Your task to perform on an android device: Open Maps and search for coffee Image 0: 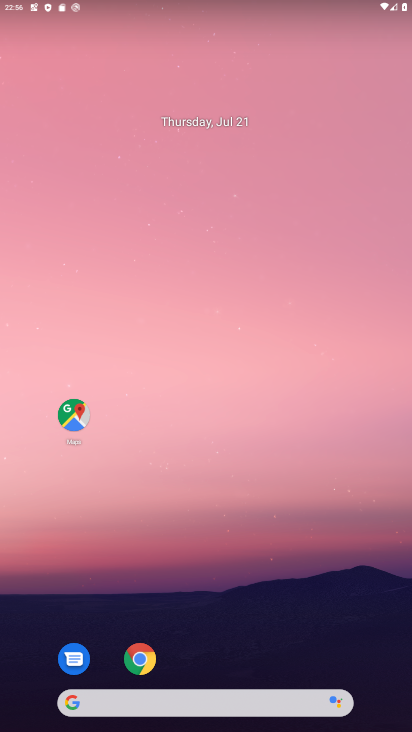
Step 0: drag from (287, 635) to (305, 78)
Your task to perform on an android device: Open Maps and search for coffee Image 1: 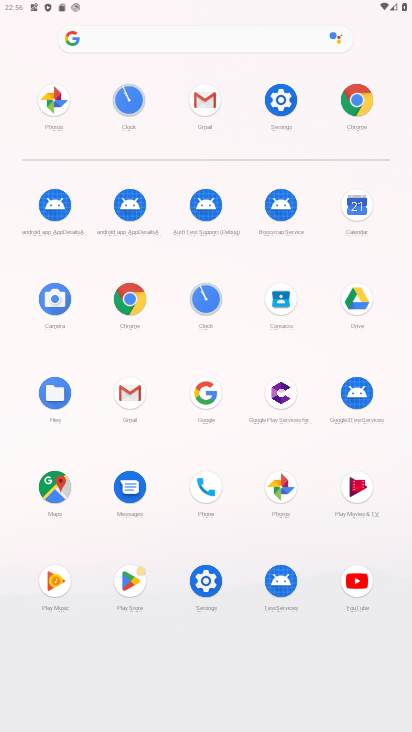
Step 1: click (56, 488)
Your task to perform on an android device: Open Maps and search for coffee Image 2: 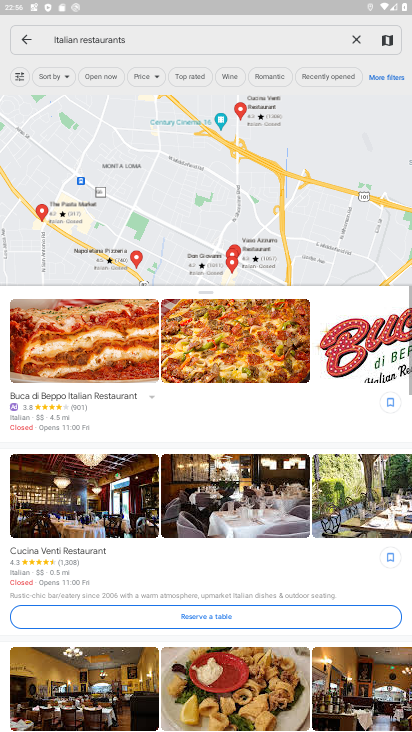
Step 2: click (357, 42)
Your task to perform on an android device: Open Maps and search for coffee Image 3: 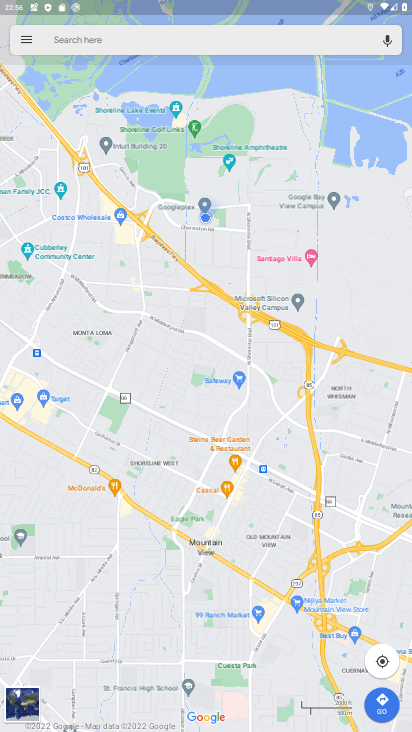
Step 3: click (245, 51)
Your task to perform on an android device: Open Maps and search for coffee Image 4: 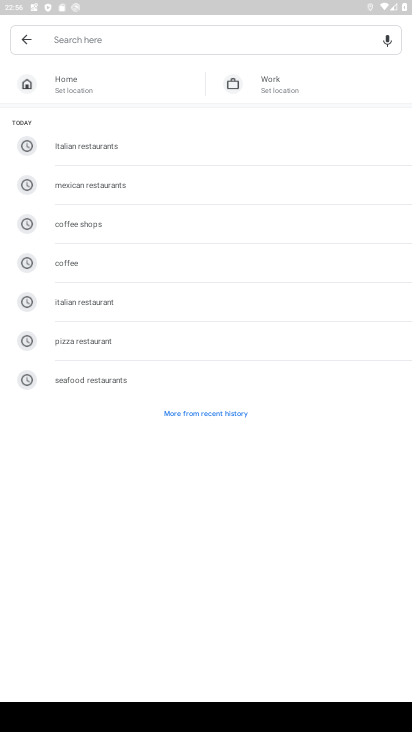
Step 4: click (113, 260)
Your task to perform on an android device: Open Maps and search for coffee Image 5: 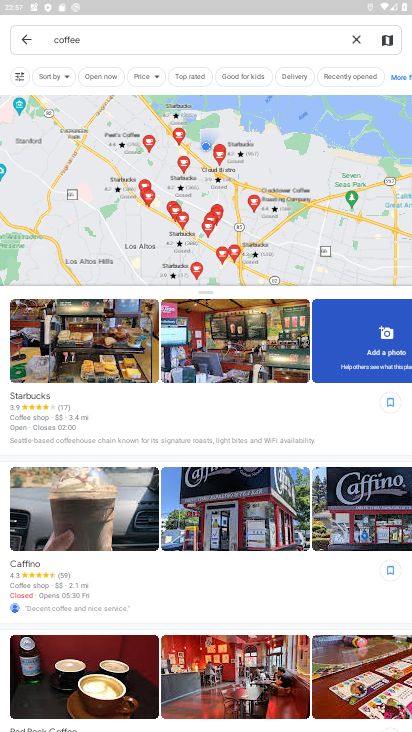
Step 5: task complete